Your task to perform on an android device: find which apps use the phone's location Image 0: 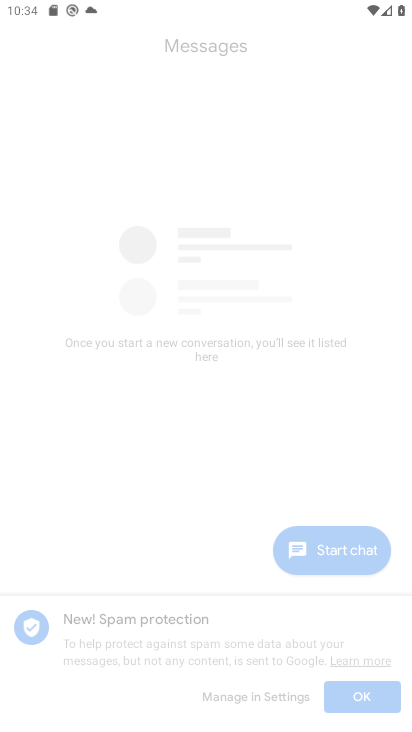
Step 0: drag from (227, 662) to (202, 0)
Your task to perform on an android device: find which apps use the phone's location Image 1: 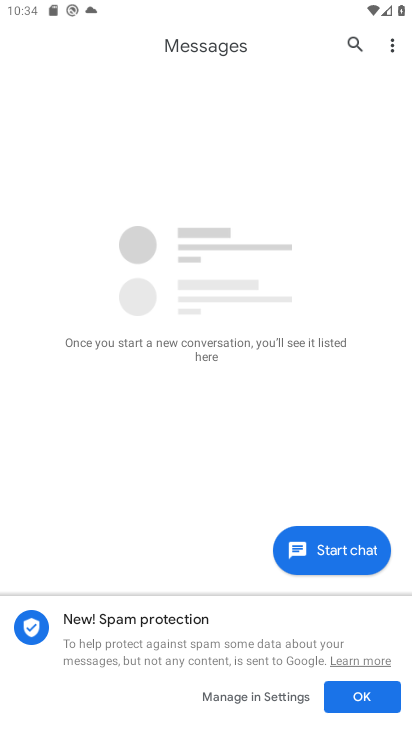
Step 1: press home button
Your task to perform on an android device: find which apps use the phone's location Image 2: 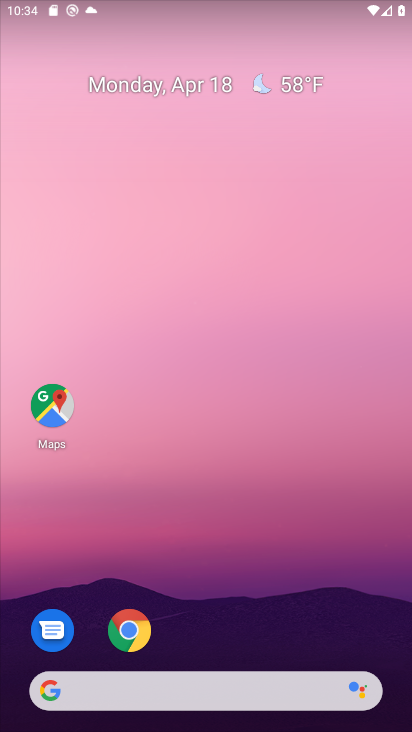
Step 2: drag from (210, 662) to (226, 29)
Your task to perform on an android device: find which apps use the phone's location Image 3: 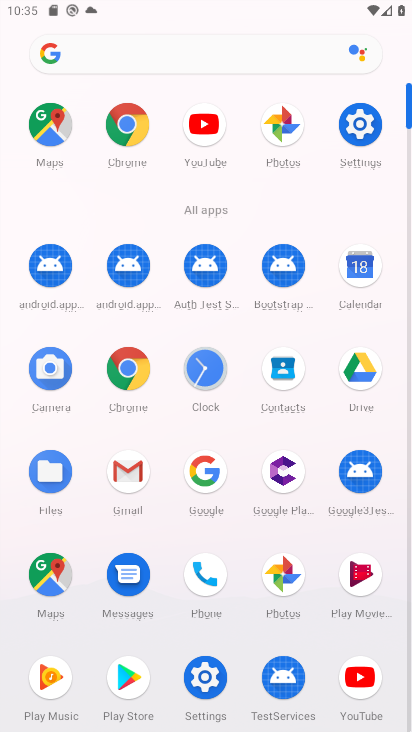
Step 3: click (344, 133)
Your task to perform on an android device: find which apps use the phone's location Image 4: 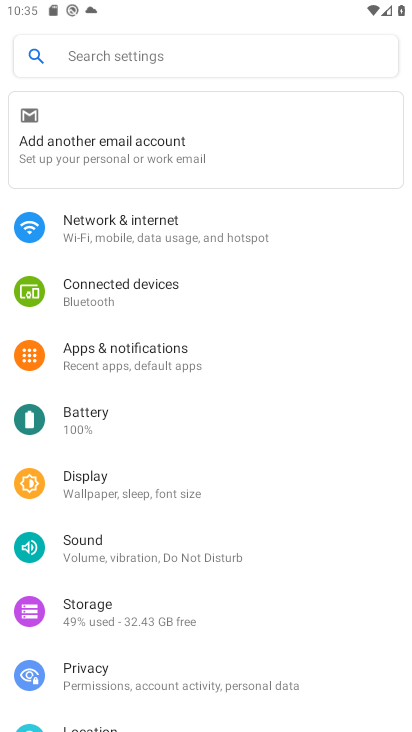
Step 4: drag from (205, 644) to (208, 237)
Your task to perform on an android device: find which apps use the phone's location Image 5: 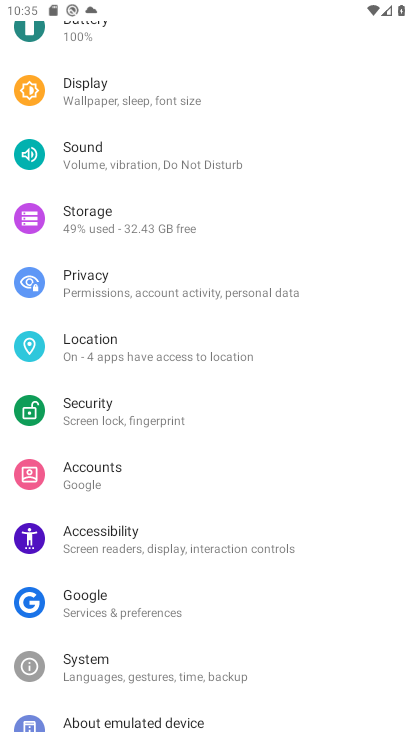
Step 5: click (91, 328)
Your task to perform on an android device: find which apps use the phone's location Image 6: 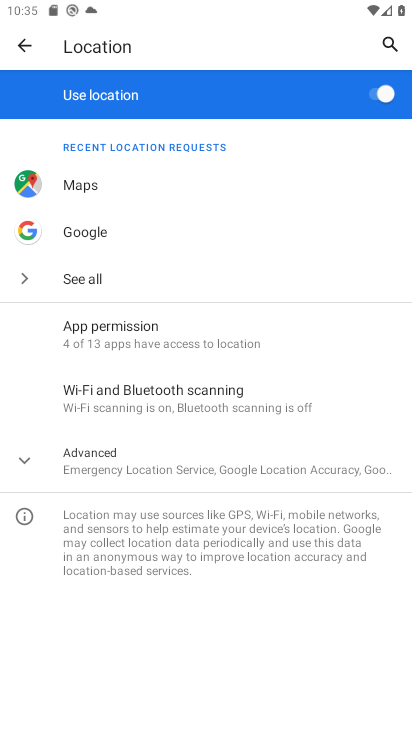
Step 6: click (159, 334)
Your task to perform on an android device: find which apps use the phone's location Image 7: 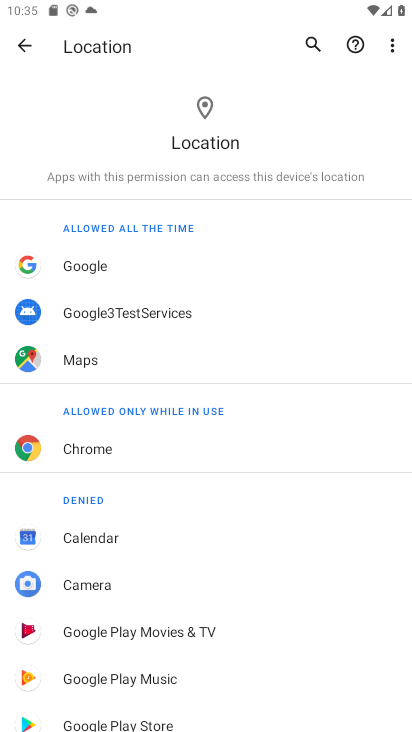
Step 7: task complete